Your task to perform on an android device: open chrome privacy settings Image 0: 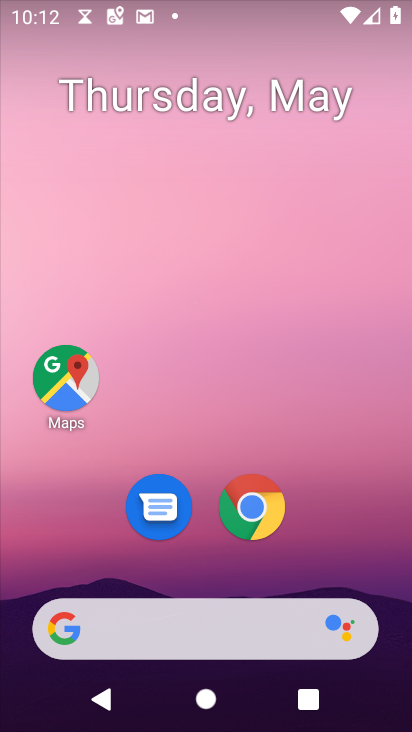
Step 0: drag from (154, 718) to (238, 70)
Your task to perform on an android device: open chrome privacy settings Image 1: 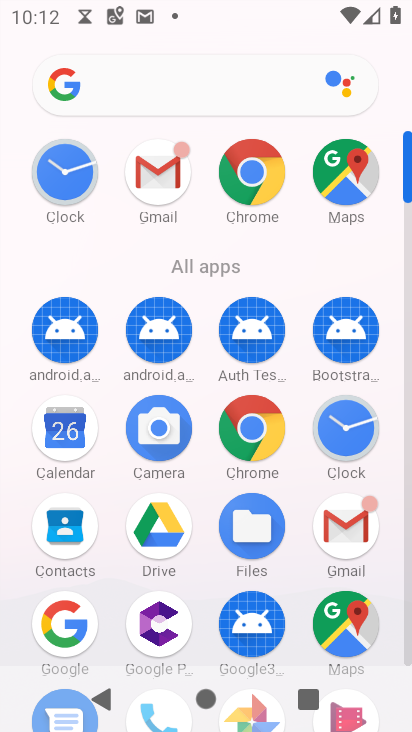
Step 1: click (251, 202)
Your task to perform on an android device: open chrome privacy settings Image 2: 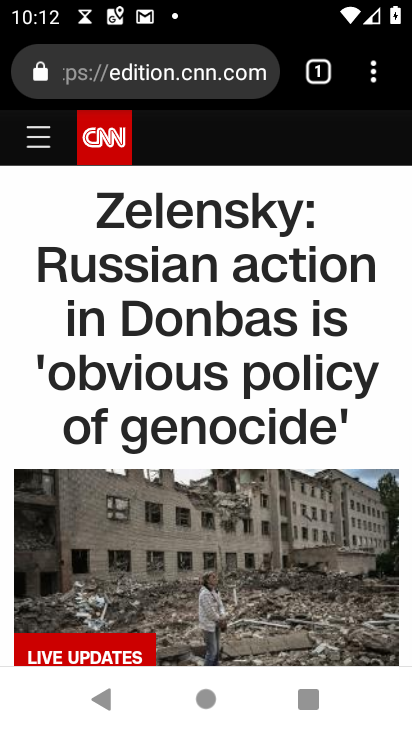
Step 2: click (380, 78)
Your task to perform on an android device: open chrome privacy settings Image 3: 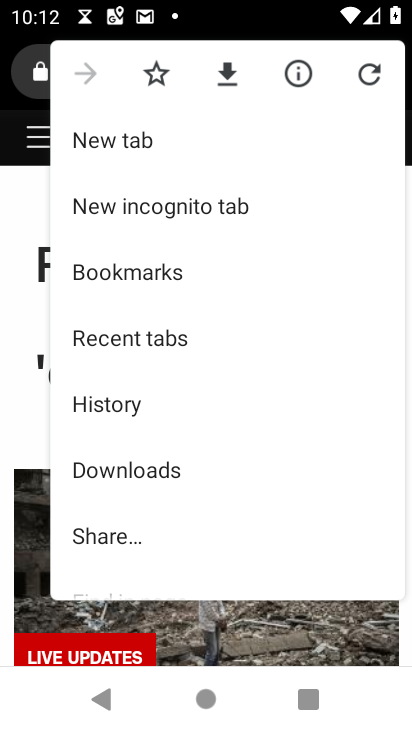
Step 3: drag from (191, 550) to (205, 155)
Your task to perform on an android device: open chrome privacy settings Image 4: 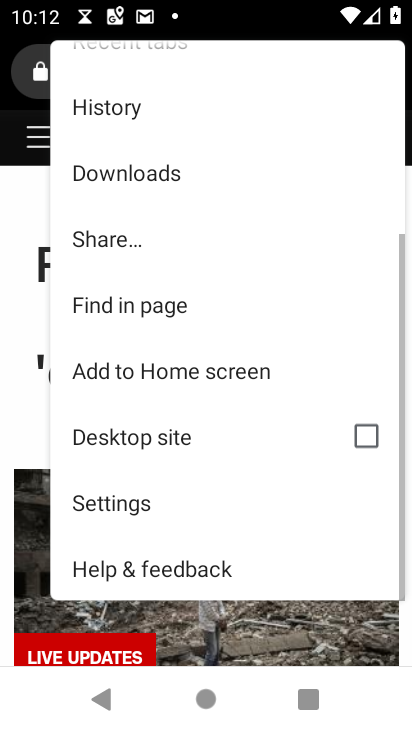
Step 4: click (126, 508)
Your task to perform on an android device: open chrome privacy settings Image 5: 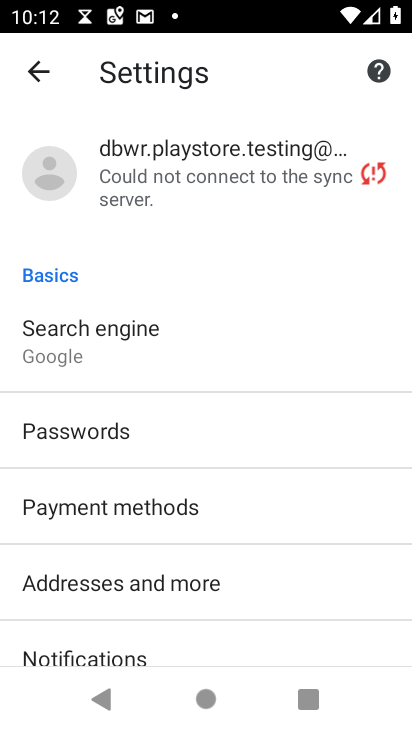
Step 5: drag from (295, 631) to (313, 272)
Your task to perform on an android device: open chrome privacy settings Image 6: 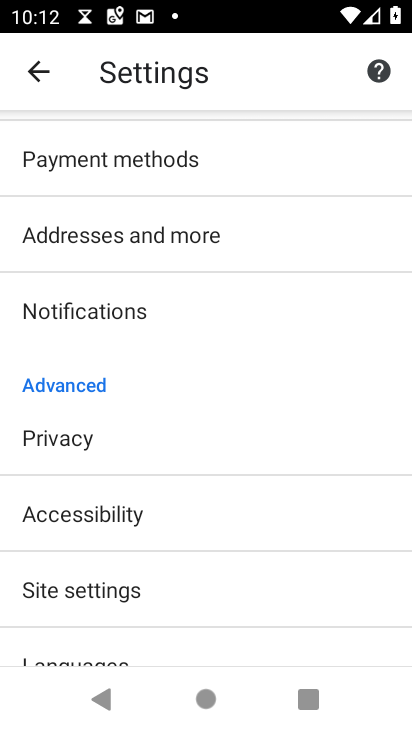
Step 6: click (156, 448)
Your task to perform on an android device: open chrome privacy settings Image 7: 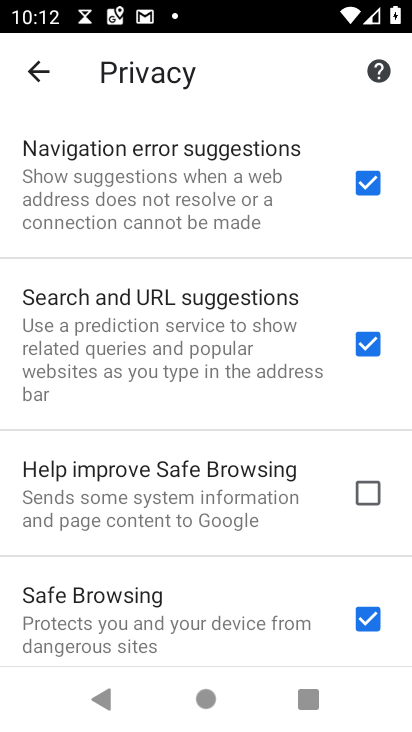
Step 7: task complete